Your task to perform on an android device: Show the shopping cart on target. Add "macbook pro 13 inch" to the cart on target, then select checkout. Image 0: 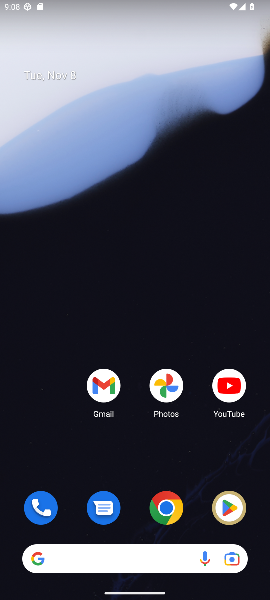
Step 0: click (170, 510)
Your task to perform on an android device: Show the shopping cart on target. Add "macbook pro 13 inch" to the cart on target, then select checkout. Image 1: 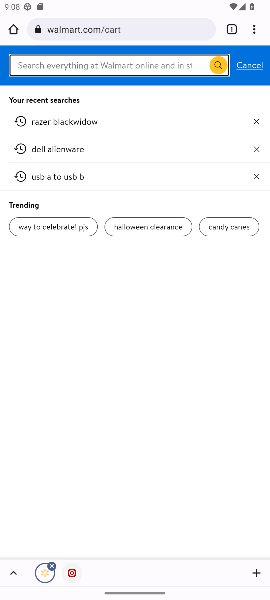
Step 1: click (79, 25)
Your task to perform on an android device: Show the shopping cart on target. Add "macbook pro 13 inch" to the cart on target, then select checkout. Image 2: 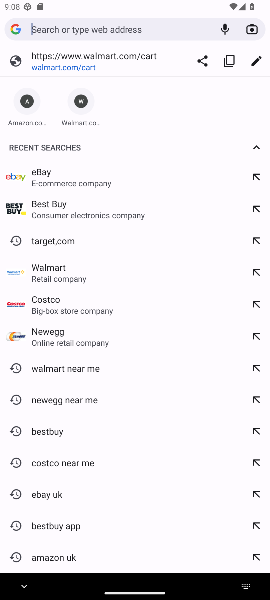
Step 2: click (39, 241)
Your task to perform on an android device: Show the shopping cart on target. Add "macbook pro 13 inch" to the cart on target, then select checkout. Image 3: 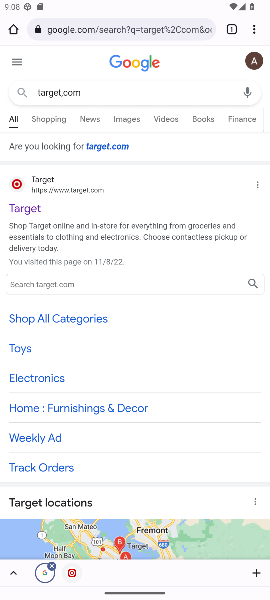
Step 3: click (14, 213)
Your task to perform on an android device: Show the shopping cart on target. Add "macbook pro 13 inch" to the cart on target, then select checkout. Image 4: 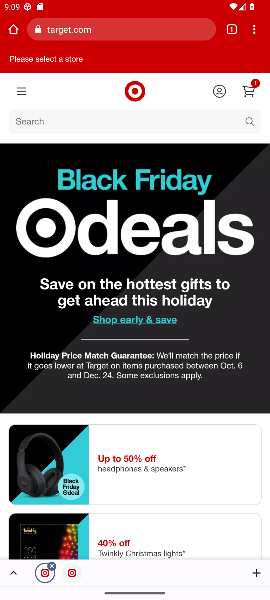
Step 4: click (41, 121)
Your task to perform on an android device: Show the shopping cart on target. Add "macbook pro 13 inch" to the cart on target, then select checkout. Image 5: 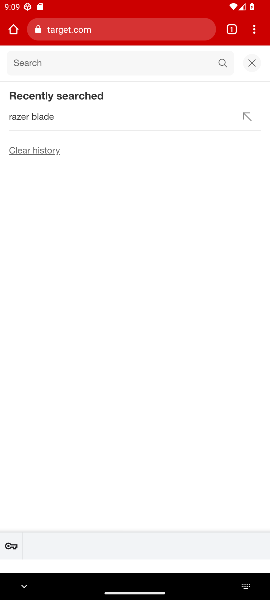
Step 5: type "macbook pro 13"
Your task to perform on an android device: Show the shopping cart on target. Add "macbook pro 13 inch" to the cart on target, then select checkout. Image 6: 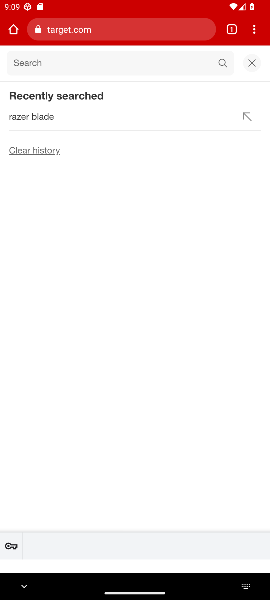
Step 6: type ""
Your task to perform on an android device: Show the shopping cart on target. Add "macbook pro 13 inch" to the cart on target, then select checkout. Image 7: 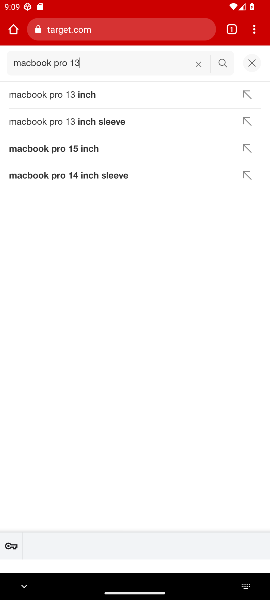
Step 7: click (40, 96)
Your task to perform on an android device: Show the shopping cart on target. Add "macbook pro 13 inch" to the cart on target, then select checkout. Image 8: 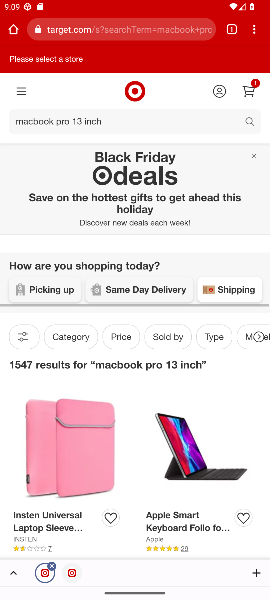
Step 8: drag from (122, 459) to (156, 43)
Your task to perform on an android device: Show the shopping cart on target. Add "macbook pro 13 inch" to the cart on target, then select checkout. Image 9: 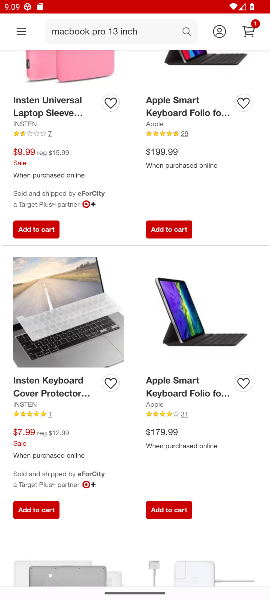
Step 9: click (181, 332)
Your task to perform on an android device: Show the shopping cart on target. Add "macbook pro 13 inch" to the cart on target, then select checkout. Image 10: 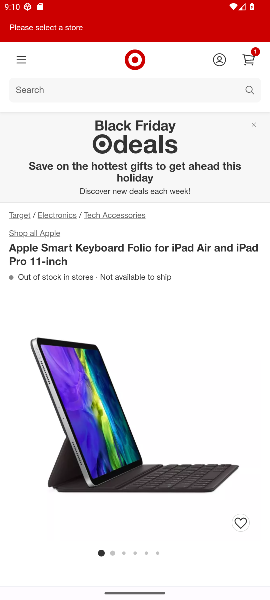
Step 10: drag from (194, 461) to (185, 217)
Your task to perform on an android device: Show the shopping cart on target. Add "macbook pro 13 inch" to the cart on target, then select checkout. Image 11: 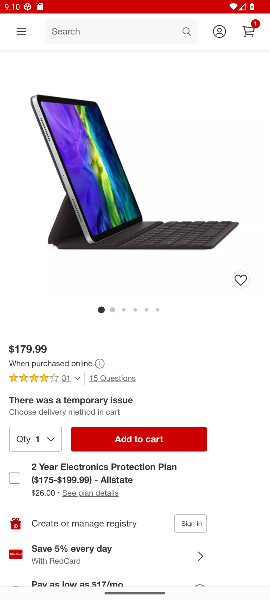
Step 11: click (147, 444)
Your task to perform on an android device: Show the shopping cart on target. Add "macbook pro 13 inch" to the cart on target, then select checkout. Image 12: 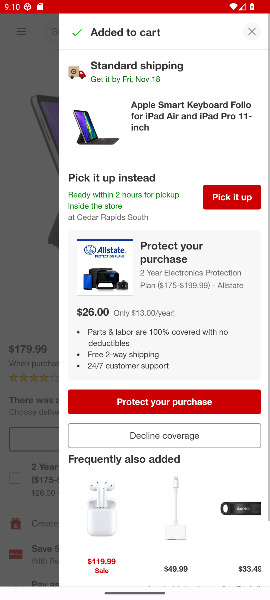
Step 12: click (162, 402)
Your task to perform on an android device: Show the shopping cart on target. Add "macbook pro 13 inch" to the cart on target, then select checkout. Image 13: 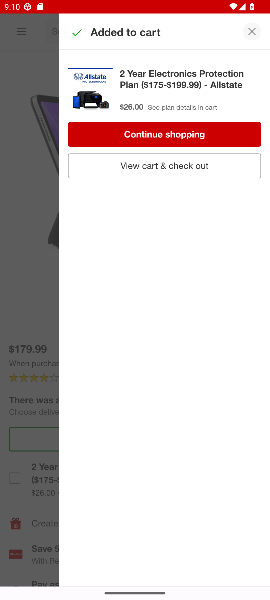
Step 13: click (149, 162)
Your task to perform on an android device: Show the shopping cart on target. Add "macbook pro 13 inch" to the cart on target, then select checkout. Image 14: 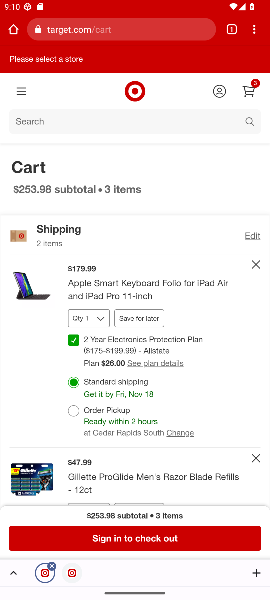
Step 14: click (162, 542)
Your task to perform on an android device: Show the shopping cart on target. Add "macbook pro 13 inch" to the cart on target, then select checkout. Image 15: 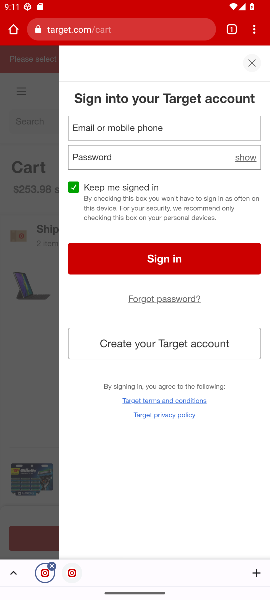
Step 15: task complete